Your task to perform on an android device: turn off data saver in the chrome app Image 0: 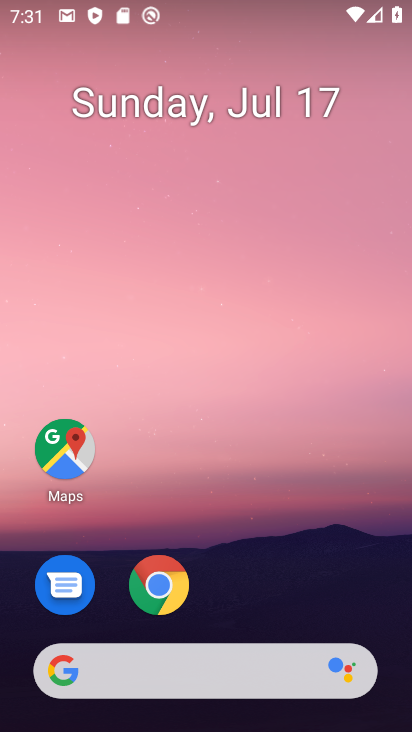
Step 0: click (154, 580)
Your task to perform on an android device: turn off data saver in the chrome app Image 1: 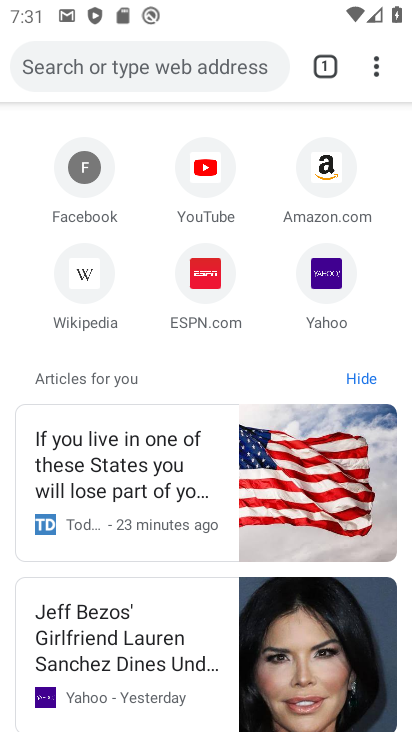
Step 1: drag from (385, 64) to (233, 546)
Your task to perform on an android device: turn off data saver in the chrome app Image 2: 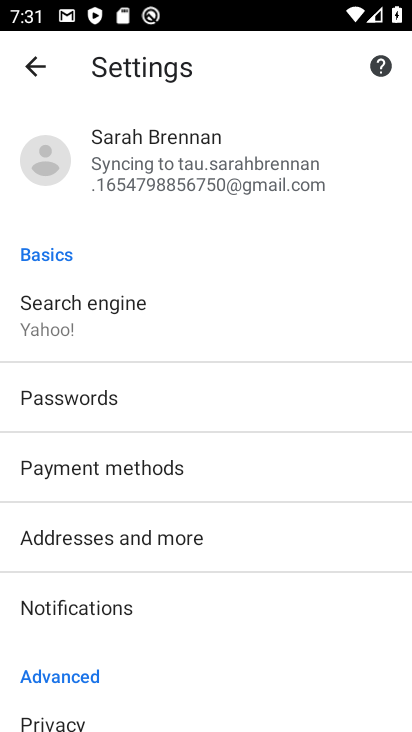
Step 2: drag from (206, 575) to (370, 171)
Your task to perform on an android device: turn off data saver in the chrome app Image 3: 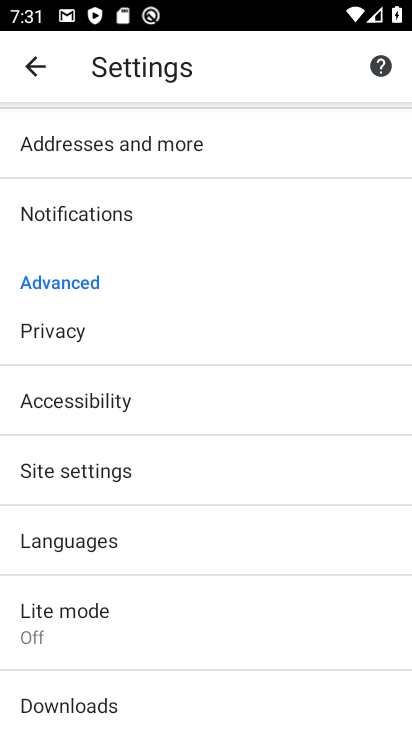
Step 3: click (94, 608)
Your task to perform on an android device: turn off data saver in the chrome app Image 4: 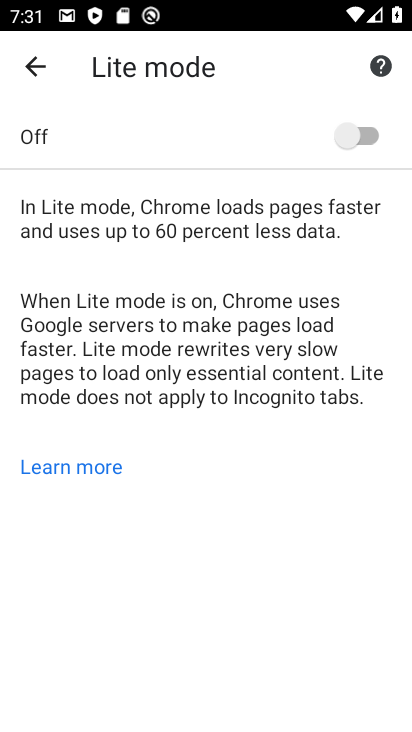
Step 4: task complete